Your task to perform on an android device: turn on data saver in the chrome app Image 0: 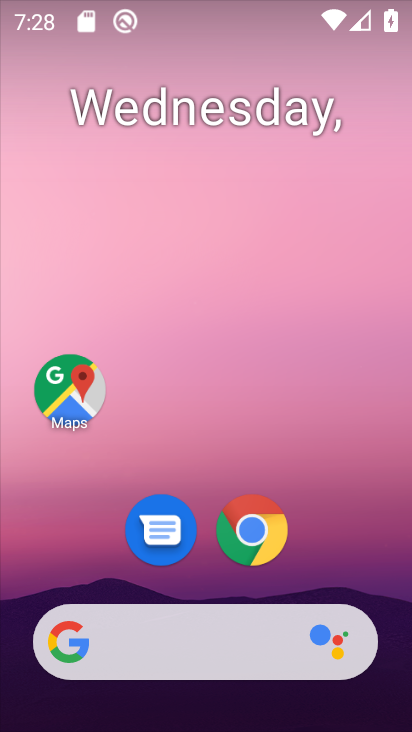
Step 0: drag from (405, 624) to (311, 100)
Your task to perform on an android device: turn on data saver in the chrome app Image 1: 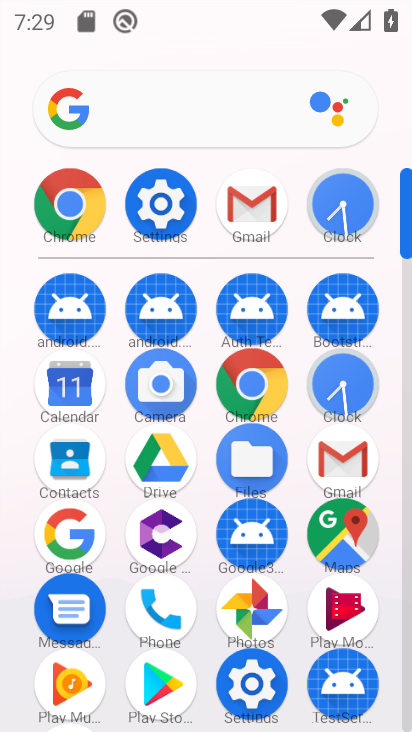
Step 1: click (237, 384)
Your task to perform on an android device: turn on data saver in the chrome app Image 2: 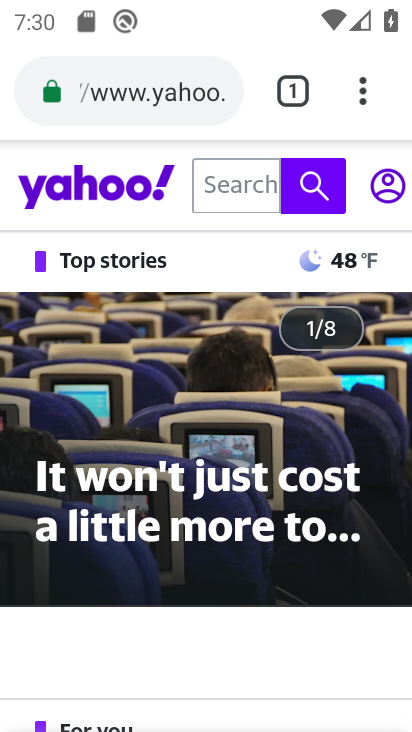
Step 2: press back button
Your task to perform on an android device: turn on data saver in the chrome app Image 3: 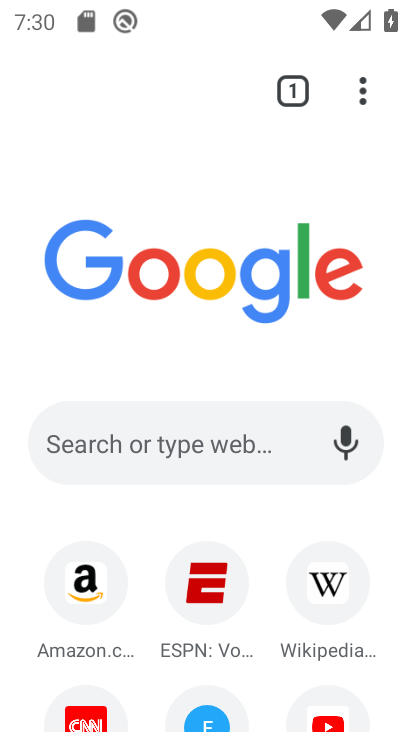
Step 3: click (359, 89)
Your task to perform on an android device: turn on data saver in the chrome app Image 4: 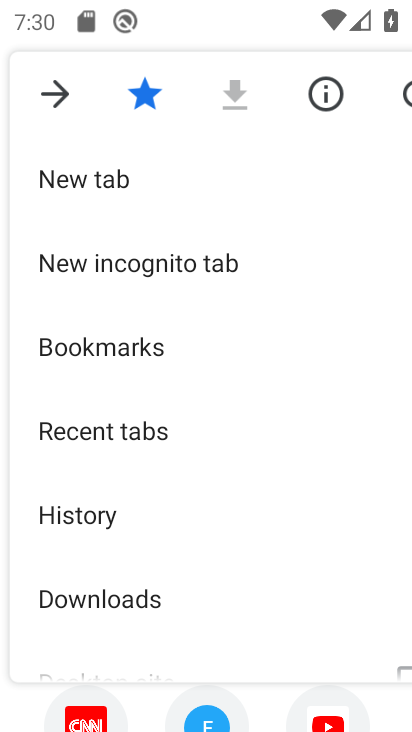
Step 4: drag from (104, 592) to (171, 179)
Your task to perform on an android device: turn on data saver in the chrome app Image 5: 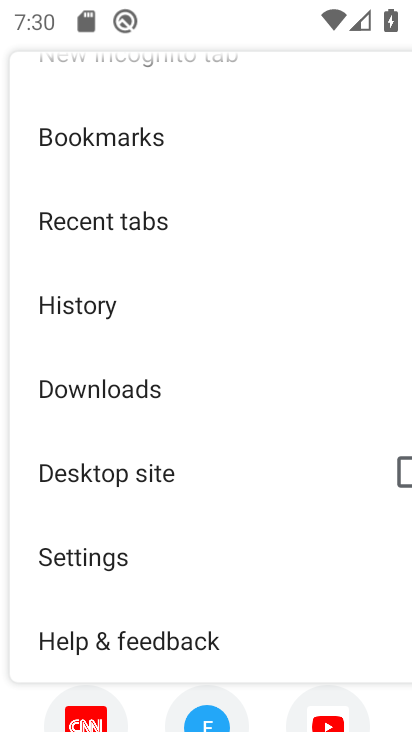
Step 5: click (110, 550)
Your task to perform on an android device: turn on data saver in the chrome app Image 6: 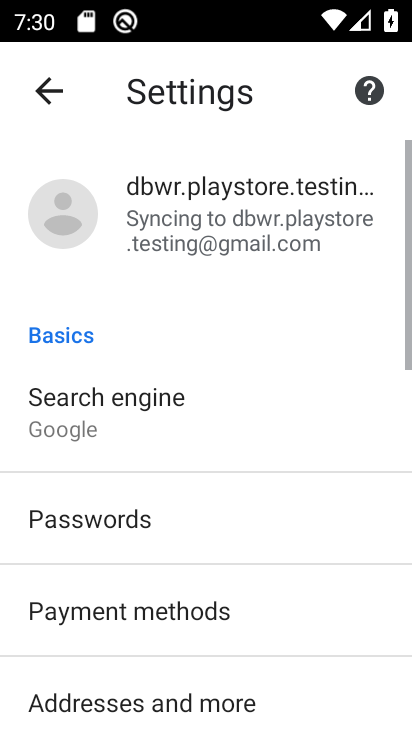
Step 6: drag from (139, 641) to (196, 169)
Your task to perform on an android device: turn on data saver in the chrome app Image 7: 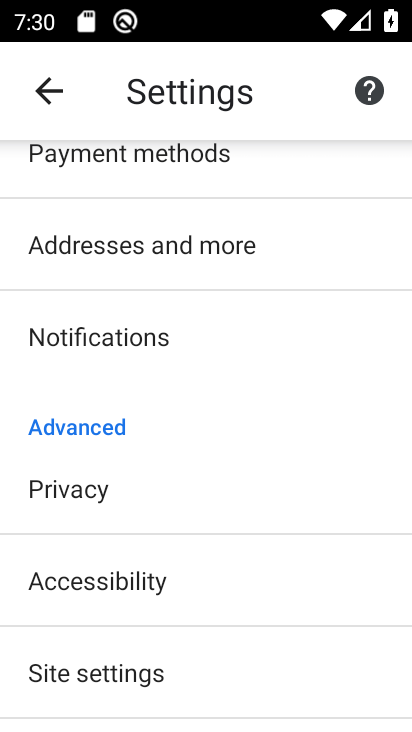
Step 7: drag from (126, 674) to (150, 184)
Your task to perform on an android device: turn on data saver in the chrome app Image 8: 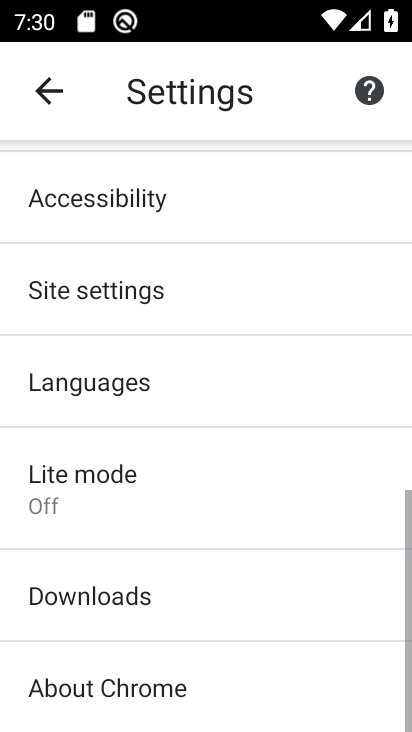
Step 8: click (156, 497)
Your task to perform on an android device: turn on data saver in the chrome app Image 9: 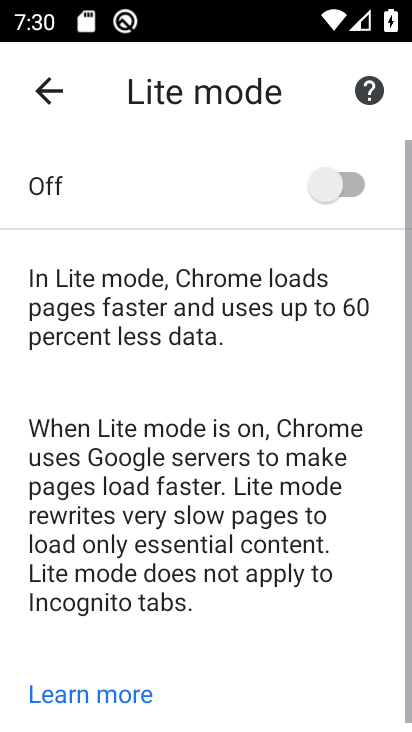
Step 9: click (340, 188)
Your task to perform on an android device: turn on data saver in the chrome app Image 10: 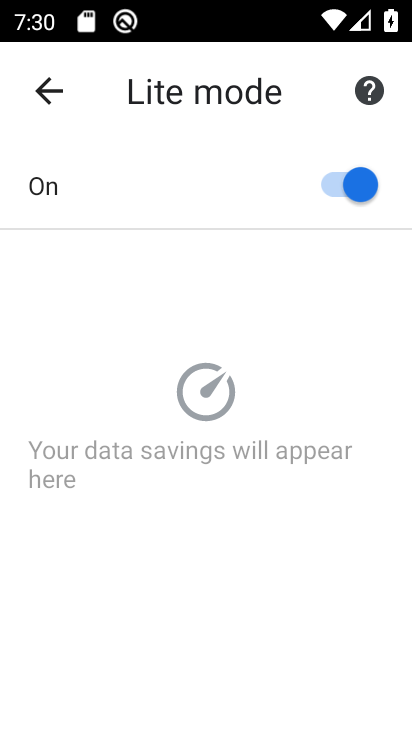
Step 10: task complete